Your task to perform on an android device: Clear the shopping cart on walmart. Image 0: 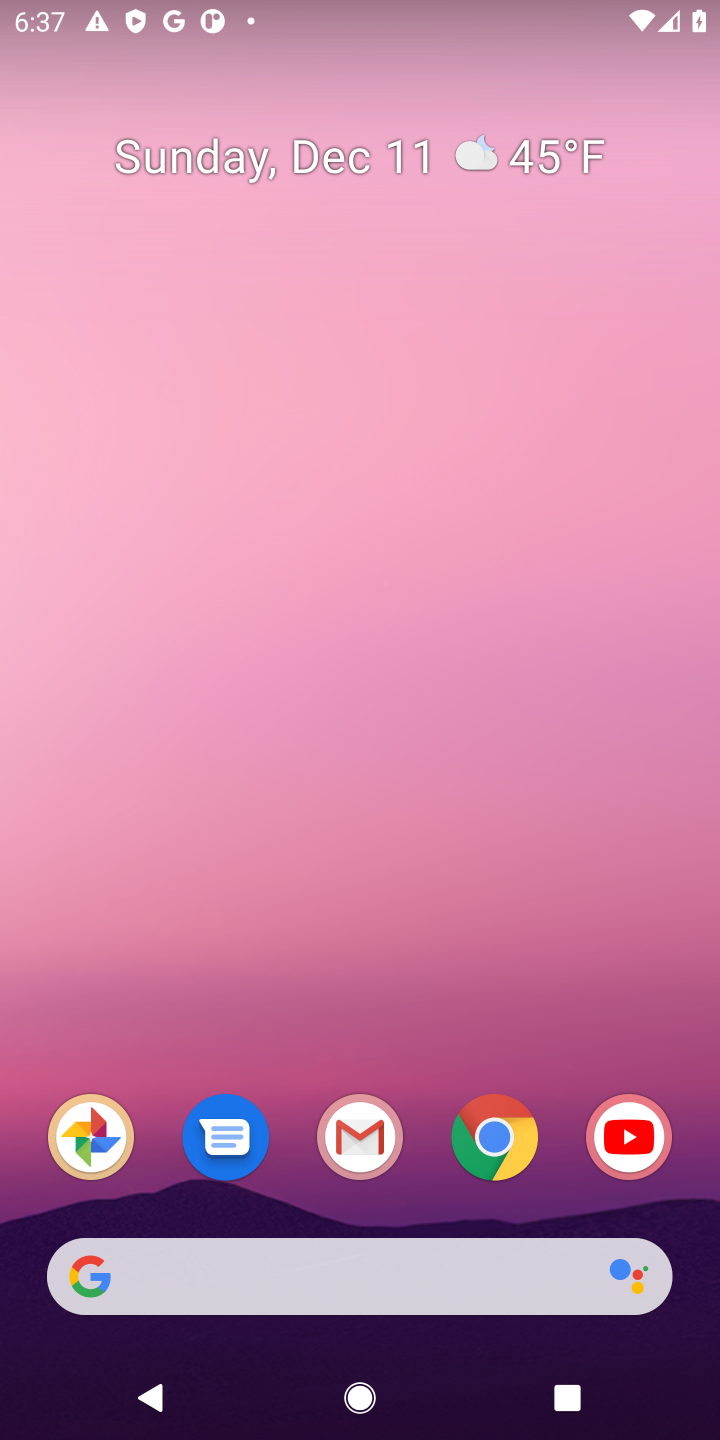
Step 0: click (475, 1104)
Your task to perform on an android device: Clear the shopping cart on walmart. Image 1: 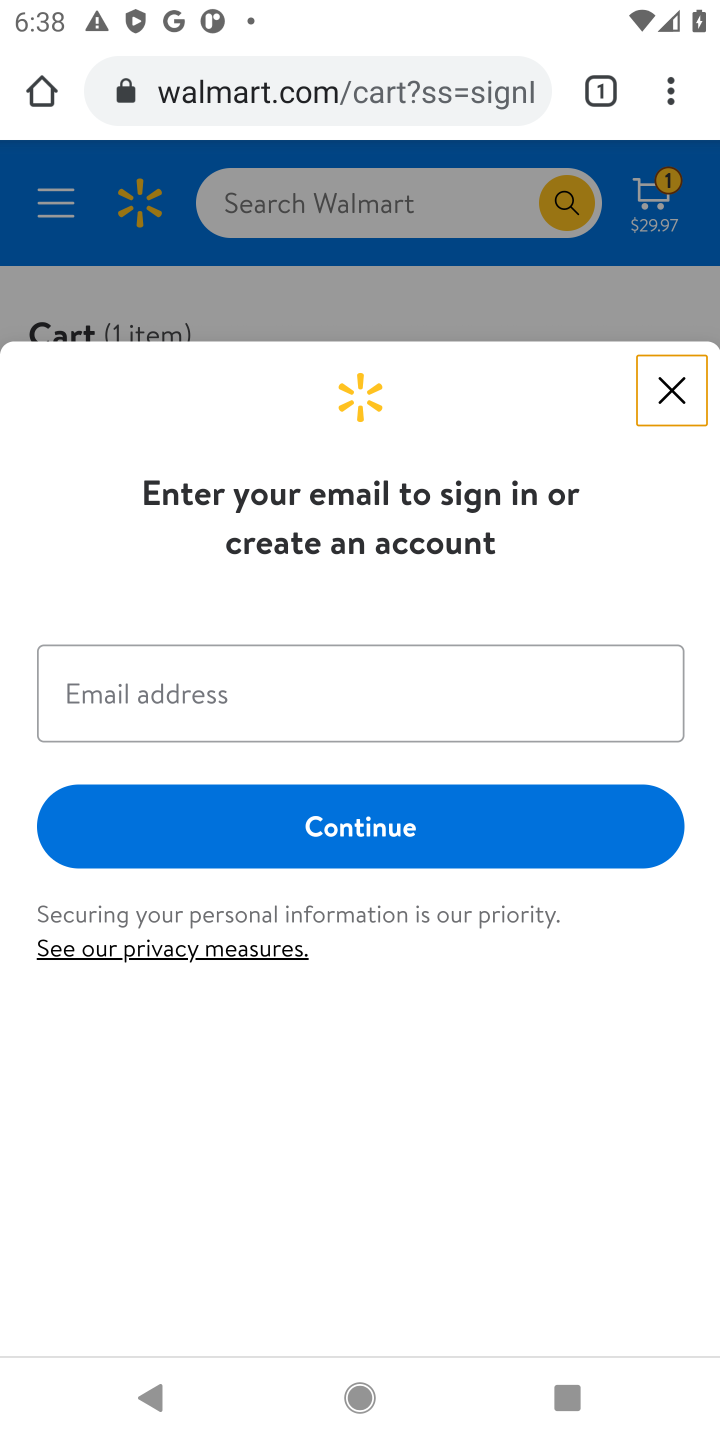
Step 1: click (655, 385)
Your task to perform on an android device: Clear the shopping cart on walmart. Image 2: 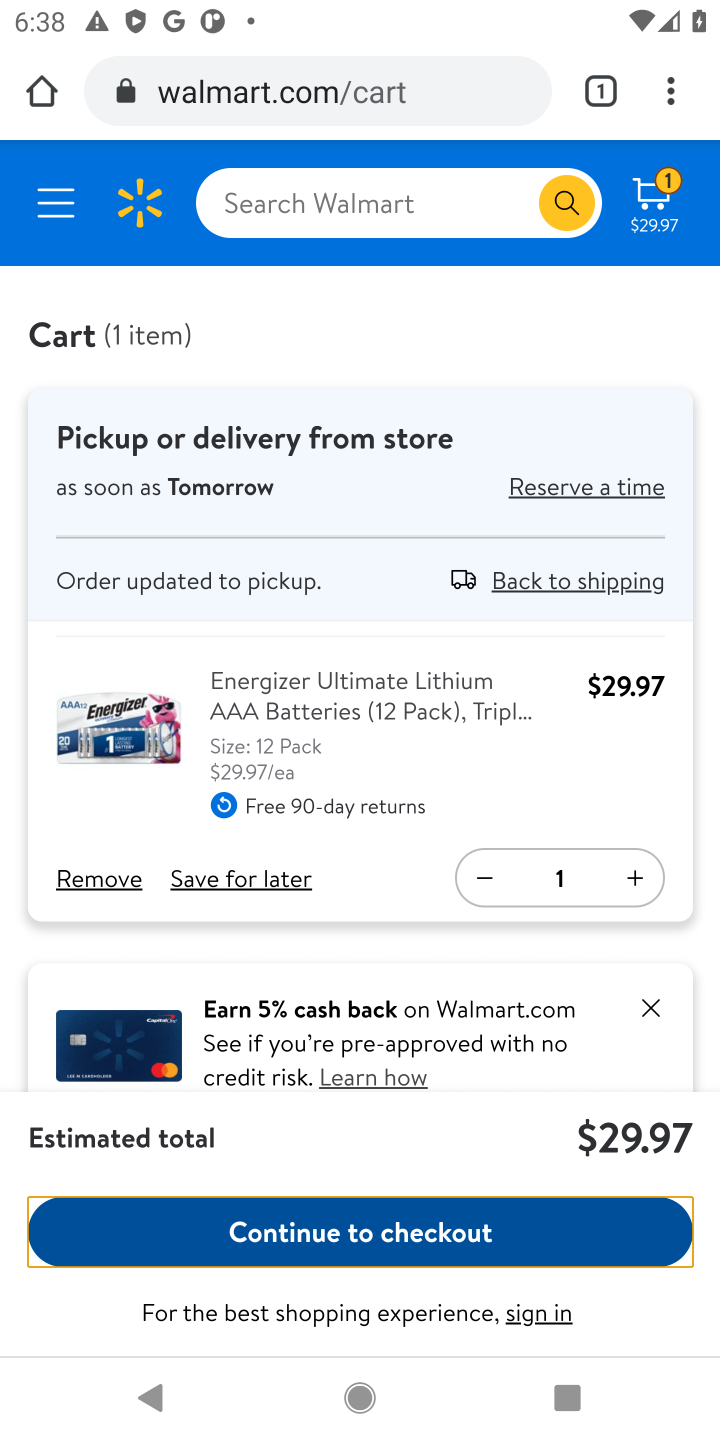
Step 2: click (84, 872)
Your task to perform on an android device: Clear the shopping cart on walmart. Image 3: 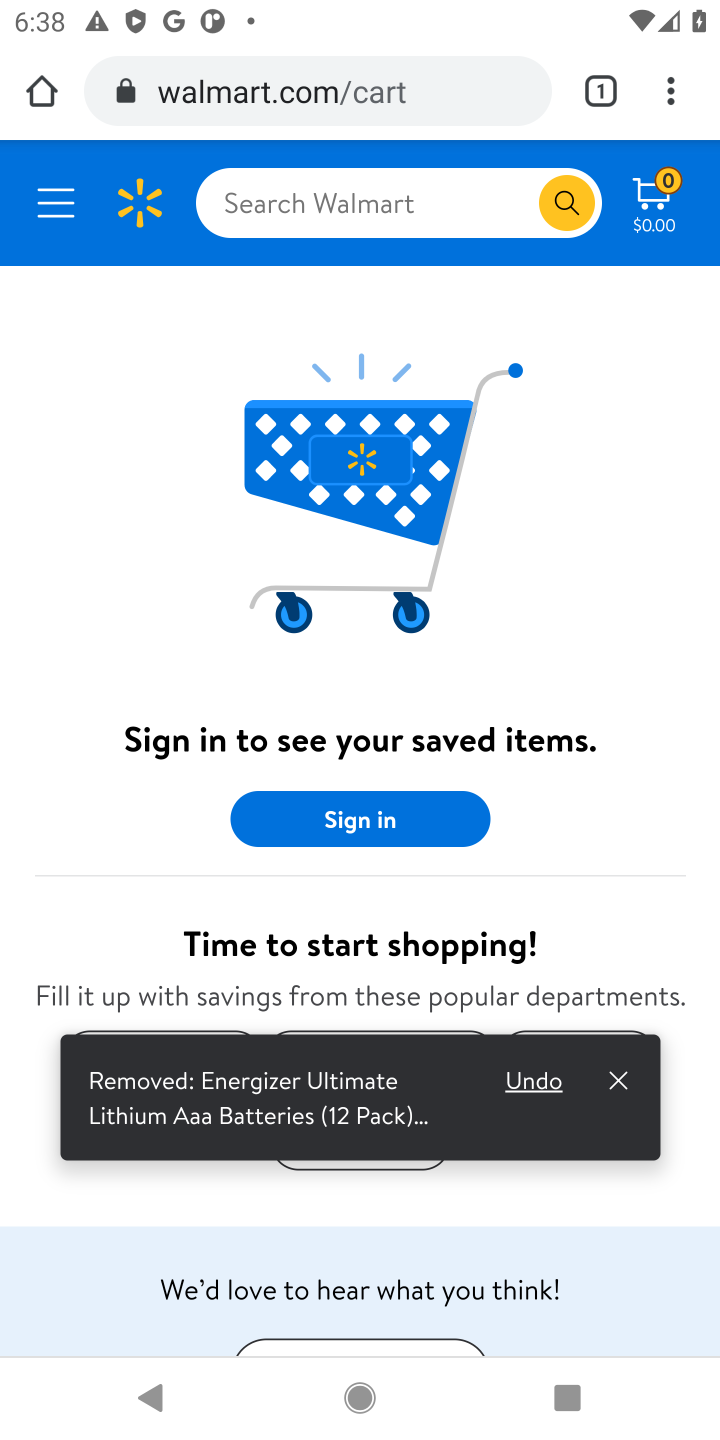
Step 3: task complete